Your task to perform on an android device: Set the phone to "Do not disturb". Image 0: 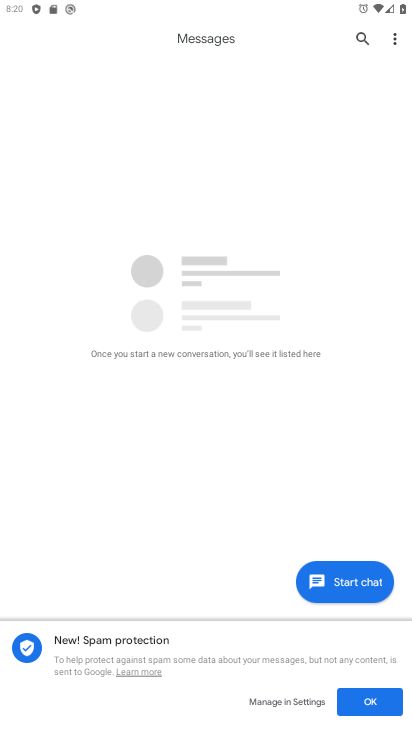
Step 0: press back button
Your task to perform on an android device: Set the phone to "Do not disturb". Image 1: 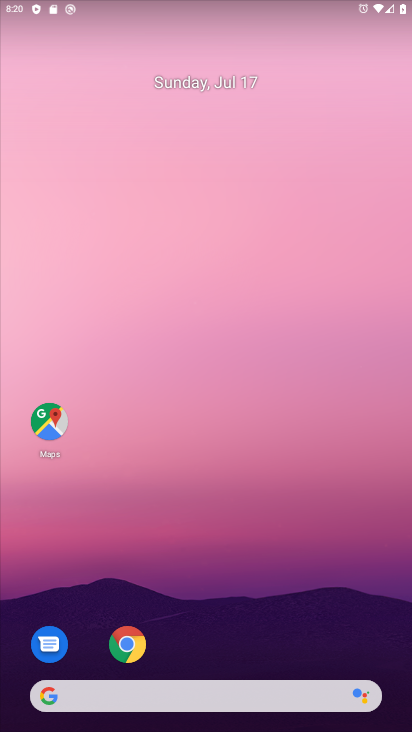
Step 1: drag from (266, 722) to (223, 118)
Your task to perform on an android device: Set the phone to "Do not disturb". Image 2: 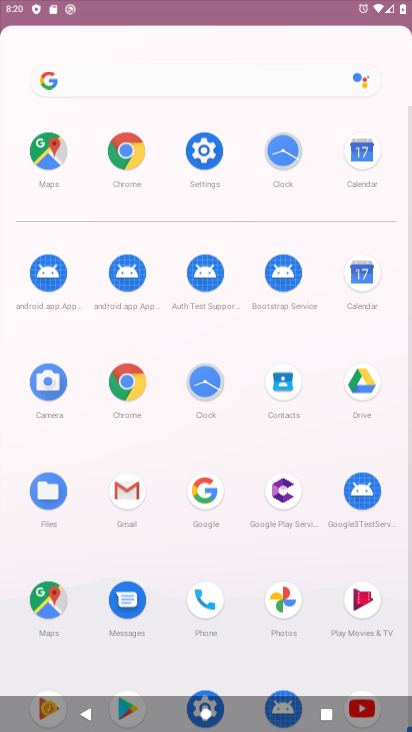
Step 2: drag from (227, 569) to (139, 55)
Your task to perform on an android device: Set the phone to "Do not disturb". Image 3: 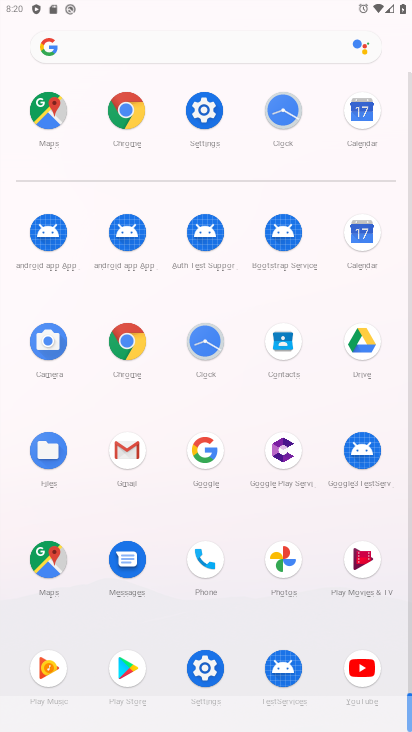
Step 3: click (210, 107)
Your task to perform on an android device: Set the phone to "Do not disturb". Image 4: 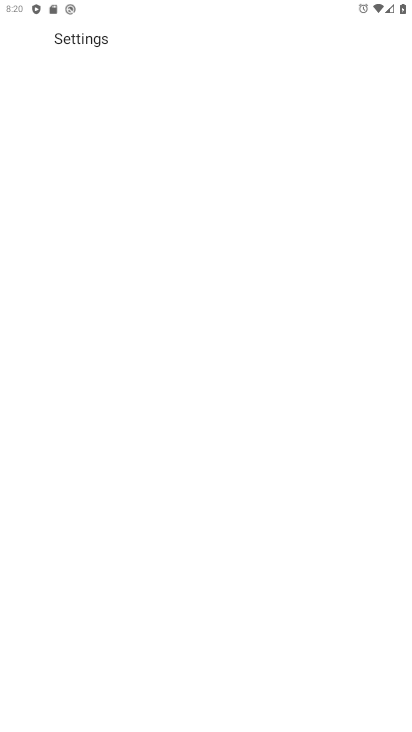
Step 4: click (206, 109)
Your task to perform on an android device: Set the phone to "Do not disturb". Image 5: 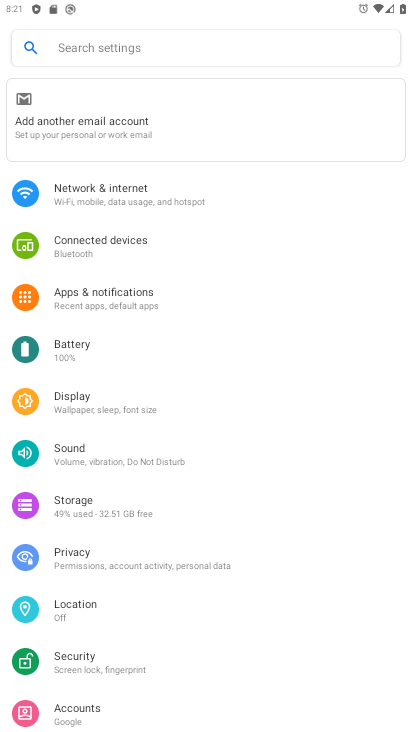
Step 5: drag from (149, 581) to (208, 205)
Your task to perform on an android device: Set the phone to "Do not disturb". Image 6: 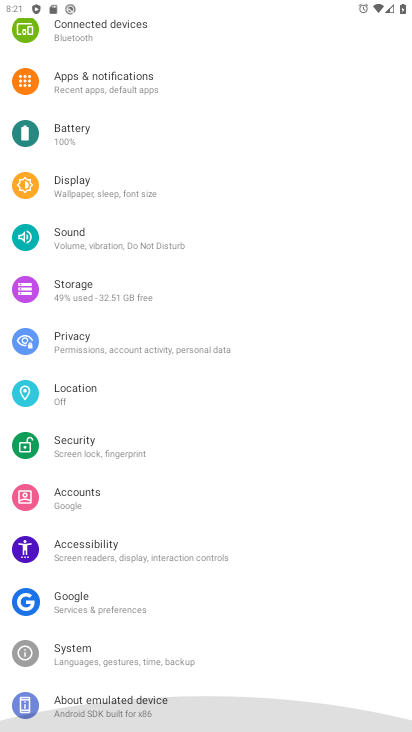
Step 6: drag from (180, 525) to (207, 207)
Your task to perform on an android device: Set the phone to "Do not disturb". Image 7: 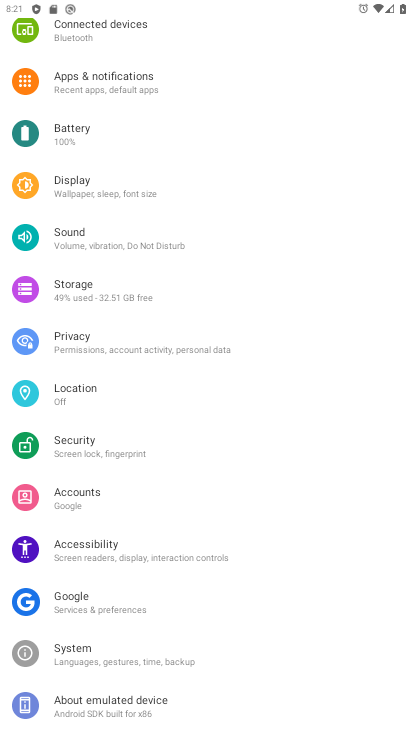
Step 7: drag from (136, 209) to (59, 727)
Your task to perform on an android device: Set the phone to "Do not disturb". Image 8: 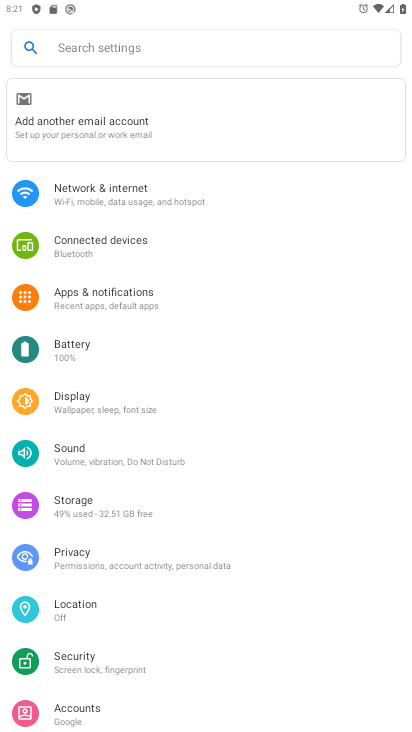
Step 8: click (121, 203)
Your task to perform on an android device: Set the phone to "Do not disturb". Image 9: 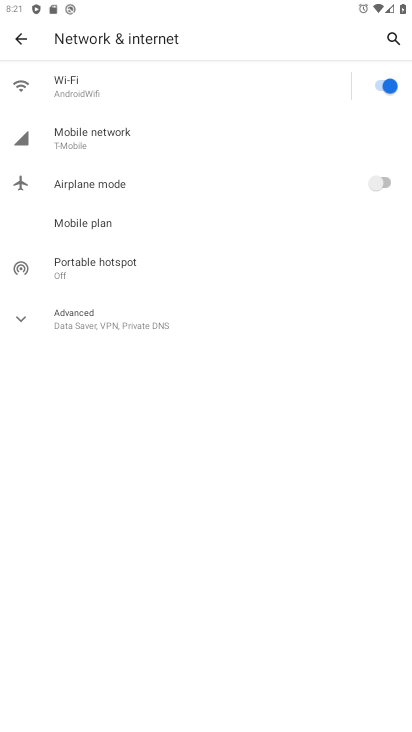
Step 9: click (17, 46)
Your task to perform on an android device: Set the phone to "Do not disturb". Image 10: 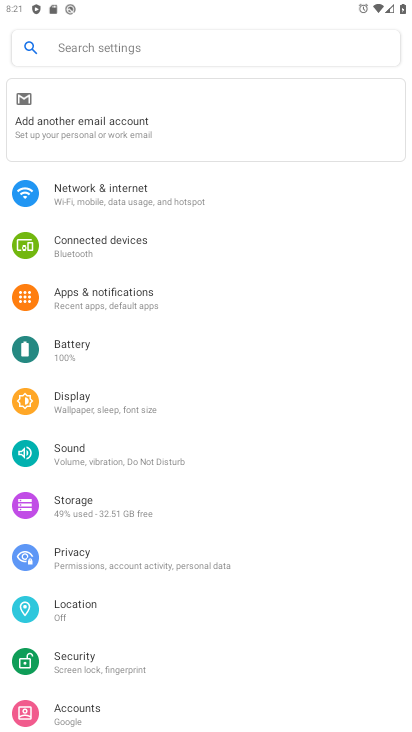
Step 10: drag from (108, 506) to (85, 130)
Your task to perform on an android device: Set the phone to "Do not disturb". Image 11: 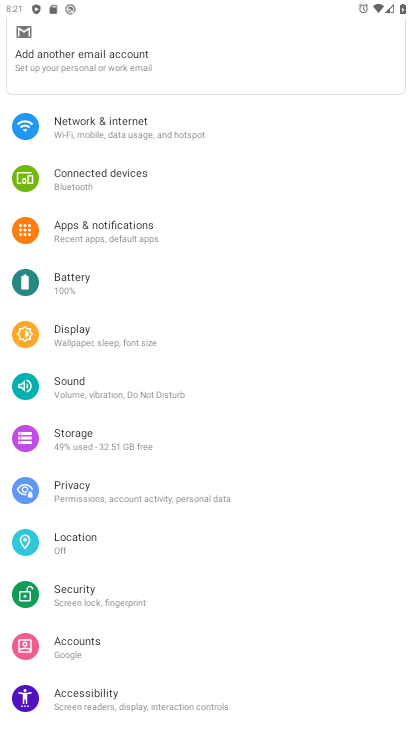
Step 11: click (89, 118)
Your task to perform on an android device: Set the phone to "Do not disturb". Image 12: 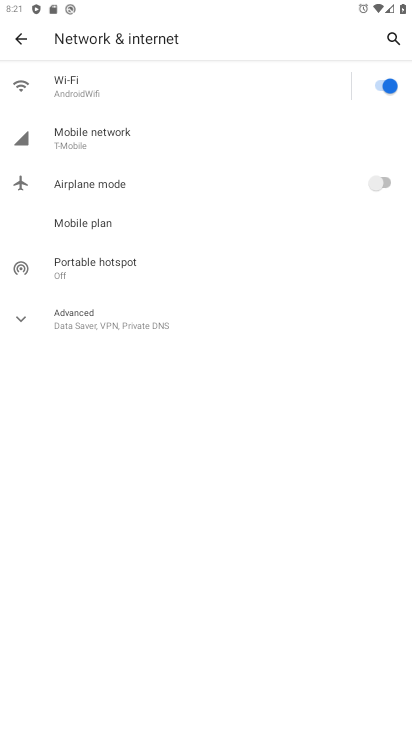
Step 12: click (21, 36)
Your task to perform on an android device: Set the phone to "Do not disturb". Image 13: 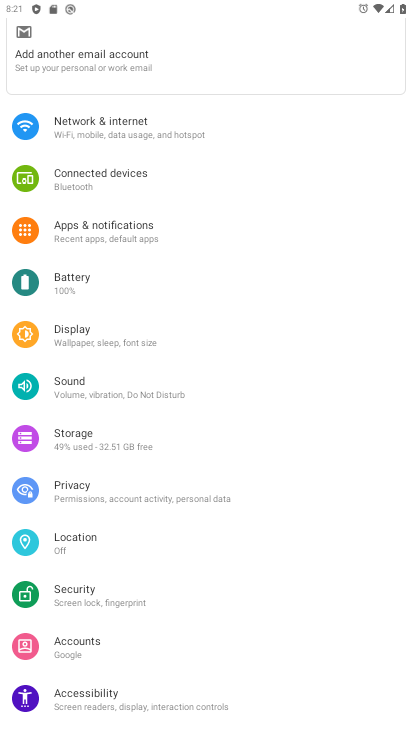
Step 13: click (91, 380)
Your task to perform on an android device: Set the phone to "Do not disturb". Image 14: 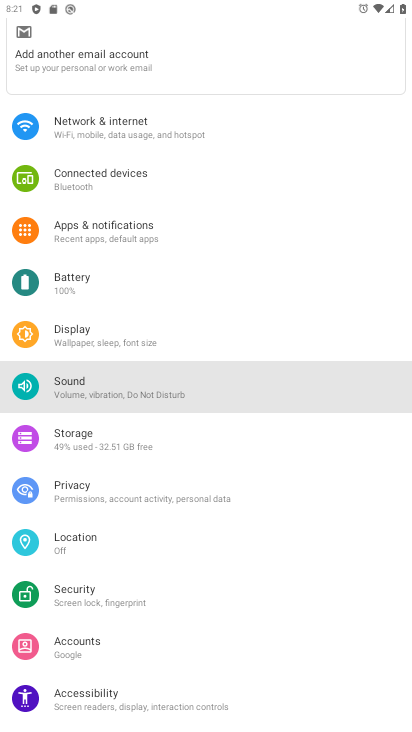
Step 14: click (90, 381)
Your task to perform on an android device: Set the phone to "Do not disturb". Image 15: 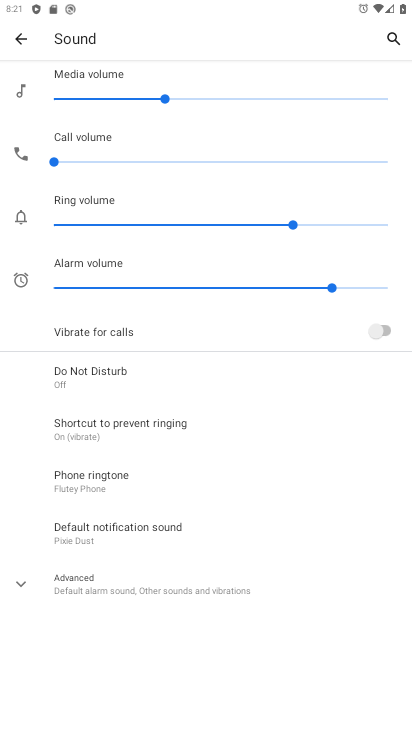
Step 15: task complete